Your task to perform on an android device: uninstall "Google Pay: Save, Pay, Manage" Image 0: 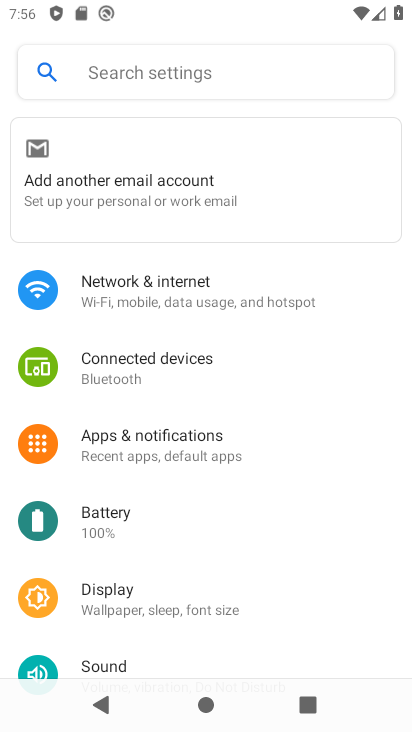
Step 0: press home button
Your task to perform on an android device: uninstall "Google Pay: Save, Pay, Manage" Image 1: 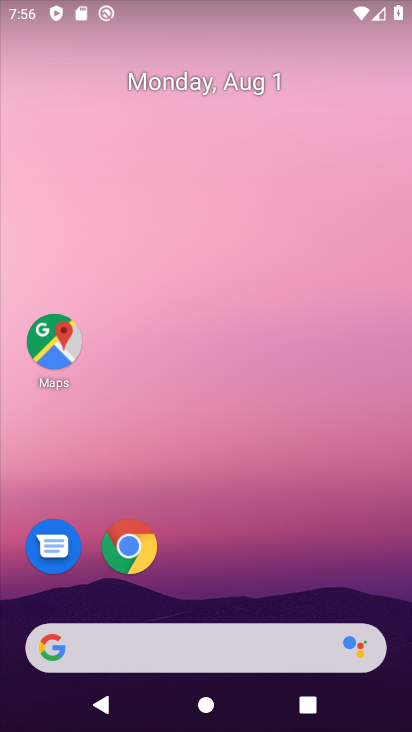
Step 1: drag from (223, 544) to (282, 97)
Your task to perform on an android device: uninstall "Google Pay: Save, Pay, Manage" Image 2: 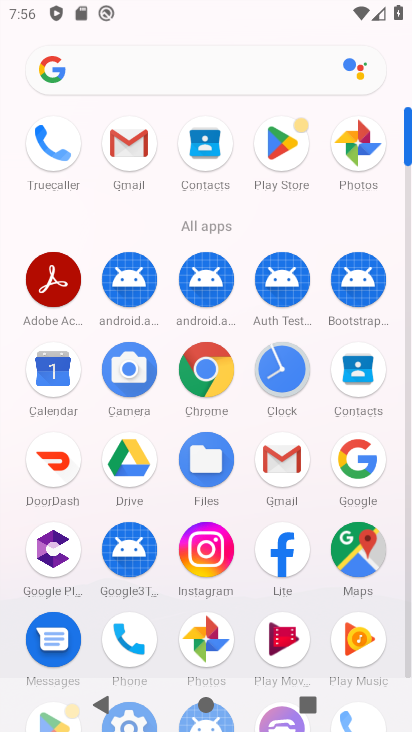
Step 2: click (277, 140)
Your task to perform on an android device: uninstall "Google Pay: Save, Pay, Manage" Image 3: 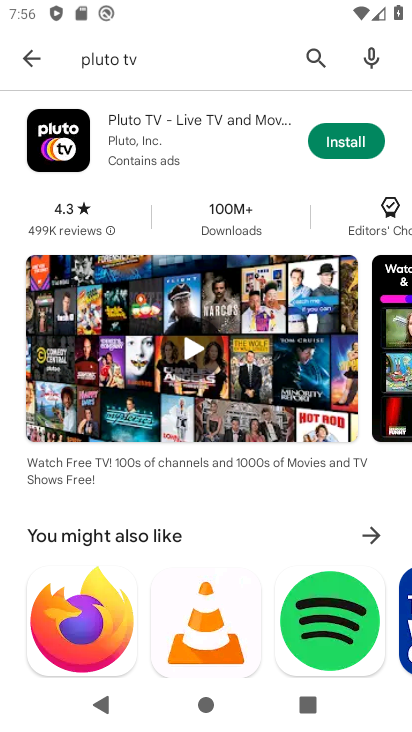
Step 3: click (261, 67)
Your task to perform on an android device: uninstall "Google Pay: Save, Pay, Manage" Image 4: 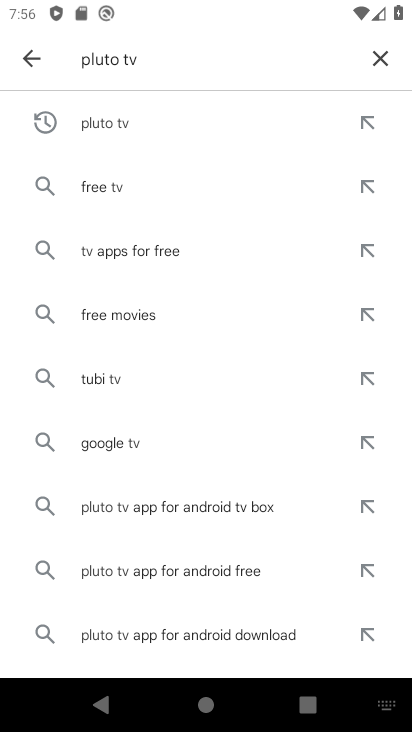
Step 4: click (373, 54)
Your task to perform on an android device: uninstall "Google Pay: Save, Pay, Manage" Image 5: 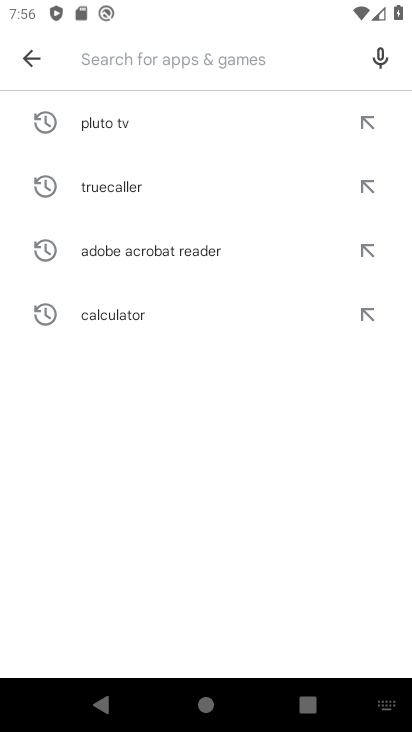
Step 5: type "google pay: sav,"
Your task to perform on an android device: uninstall "Google Pay: Save, Pay, Manage" Image 6: 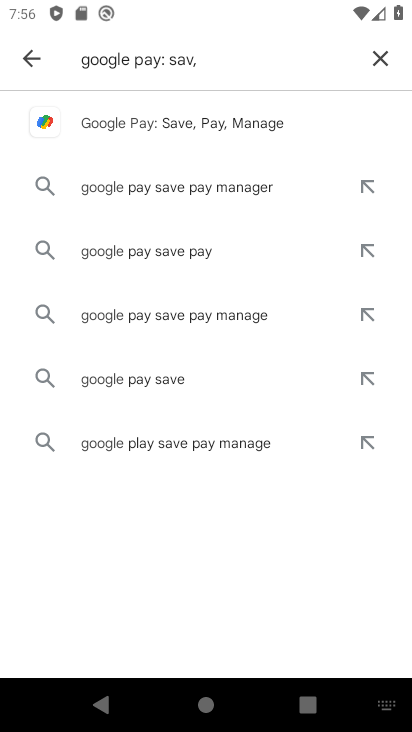
Step 6: click (250, 123)
Your task to perform on an android device: uninstall "Google Pay: Save, Pay, Manage" Image 7: 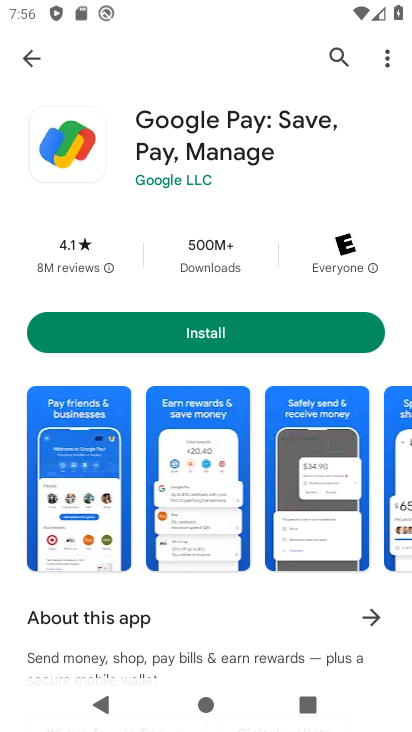
Step 7: task complete